Your task to perform on an android device: move a message to another label in the gmail app Image 0: 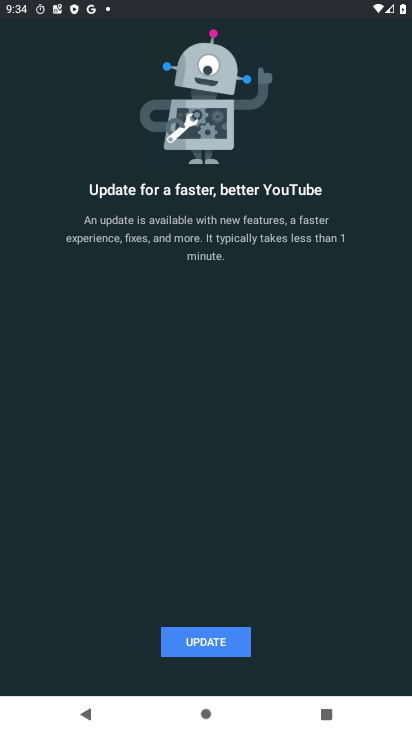
Step 0: press home button
Your task to perform on an android device: move a message to another label in the gmail app Image 1: 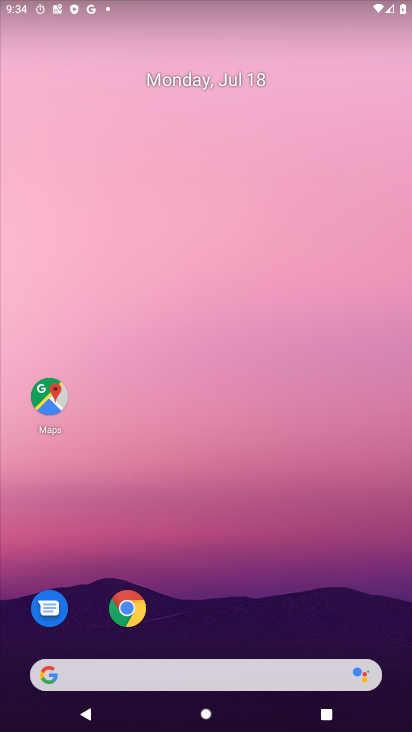
Step 1: drag from (173, 534) to (180, 196)
Your task to perform on an android device: move a message to another label in the gmail app Image 2: 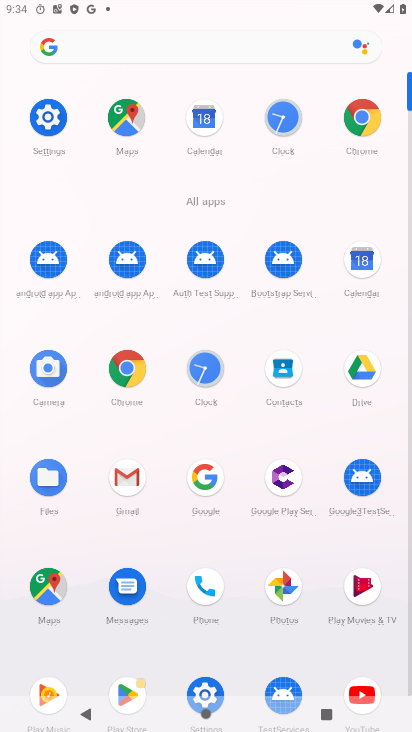
Step 2: click (124, 504)
Your task to perform on an android device: move a message to another label in the gmail app Image 3: 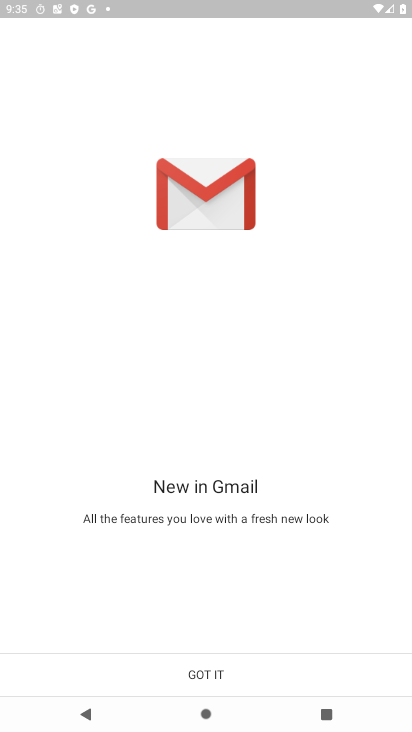
Step 3: click (201, 684)
Your task to perform on an android device: move a message to another label in the gmail app Image 4: 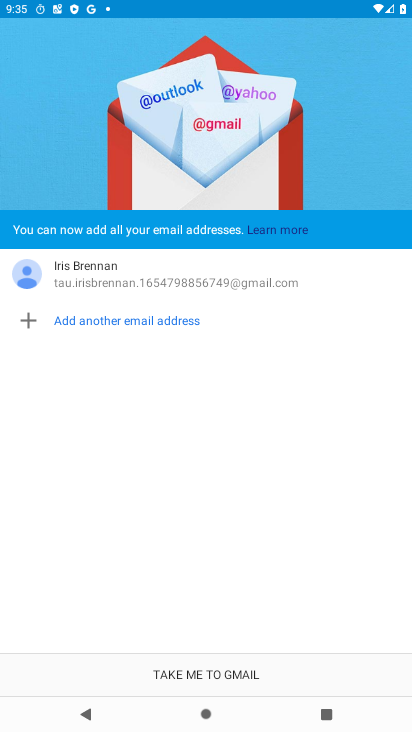
Step 4: click (192, 666)
Your task to perform on an android device: move a message to another label in the gmail app Image 5: 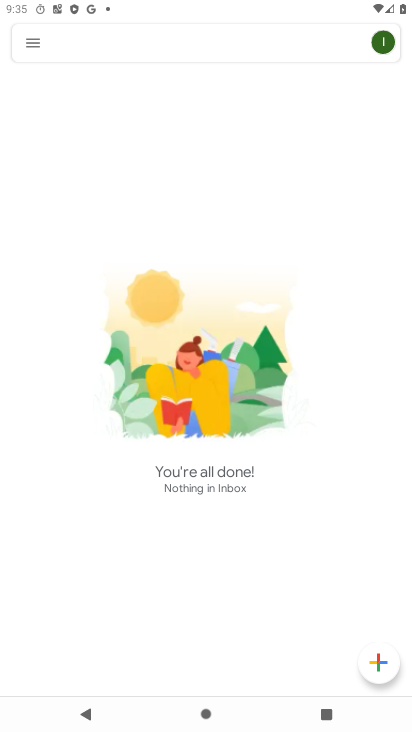
Step 5: click (26, 43)
Your task to perform on an android device: move a message to another label in the gmail app Image 6: 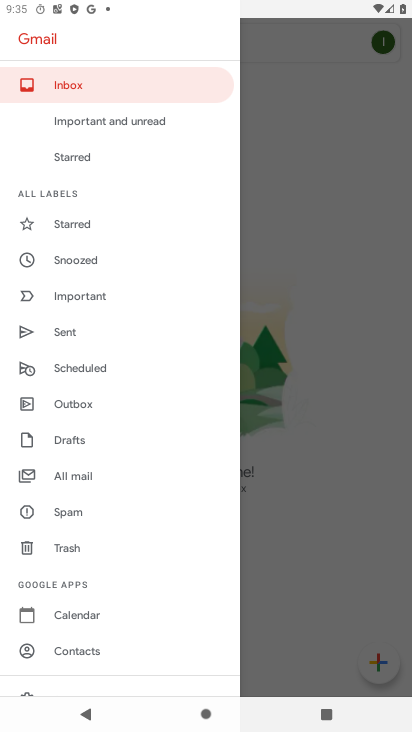
Step 6: click (52, 481)
Your task to perform on an android device: move a message to another label in the gmail app Image 7: 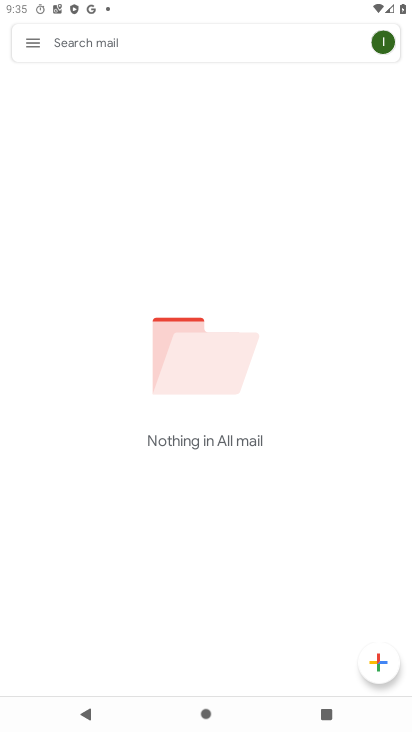
Step 7: task complete